Your task to perform on an android device: Open maps Image 0: 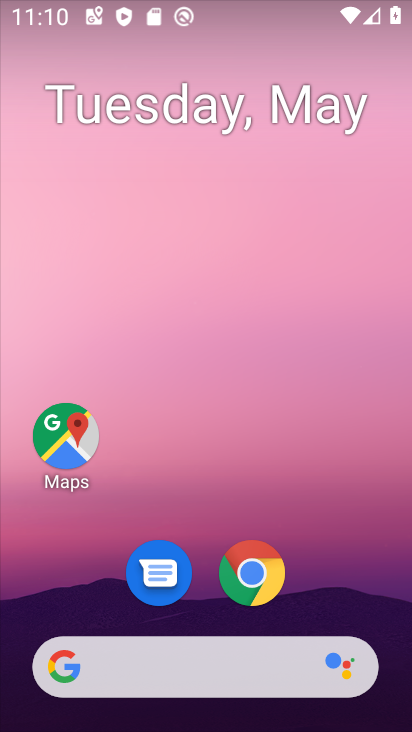
Step 0: click (57, 429)
Your task to perform on an android device: Open maps Image 1: 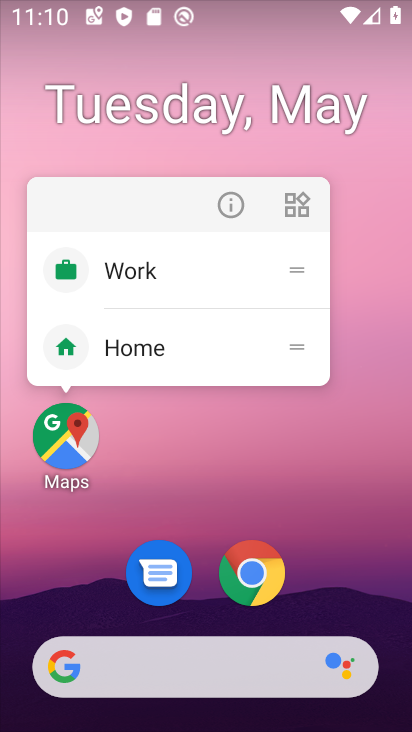
Step 1: click (58, 430)
Your task to perform on an android device: Open maps Image 2: 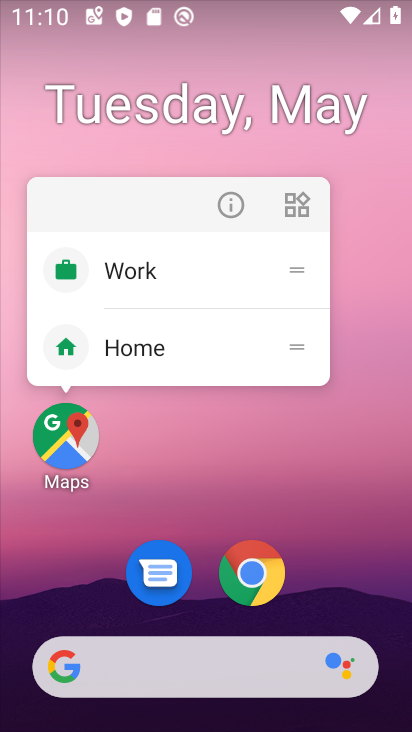
Step 2: click (58, 430)
Your task to perform on an android device: Open maps Image 3: 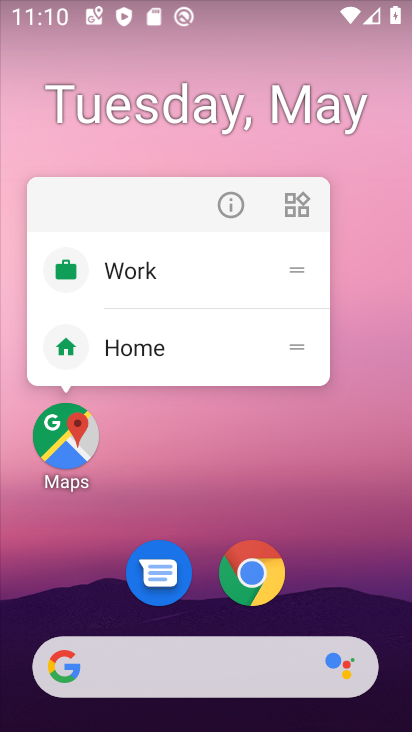
Step 3: click (59, 430)
Your task to perform on an android device: Open maps Image 4: 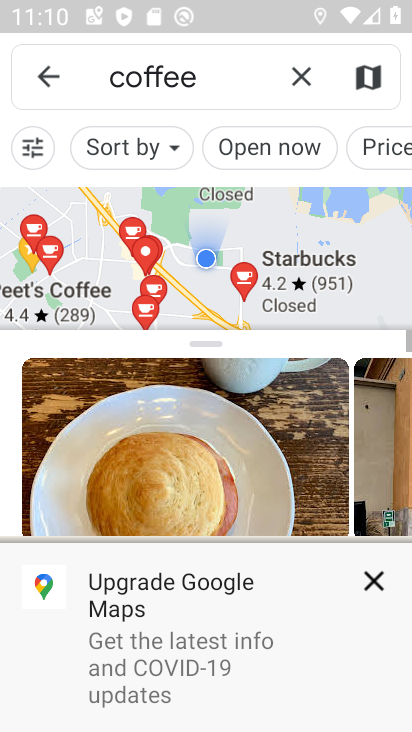
Step 4: click (59, 422)
Your task to perform on an android device: Open maps Image 5: 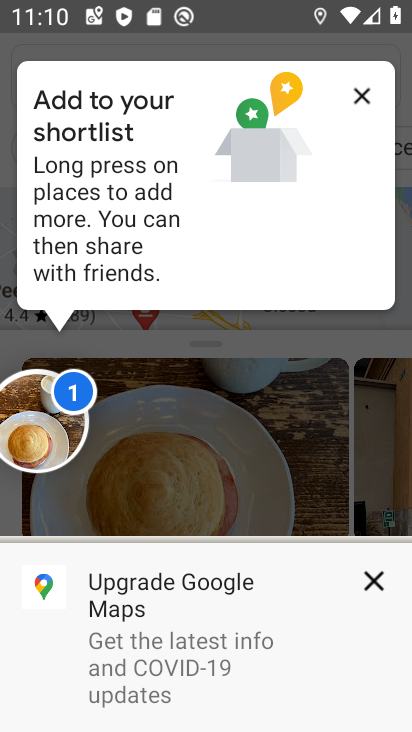
Step 5: click (298, 80)
Your task to perform on an android device: Open maps Image 6: 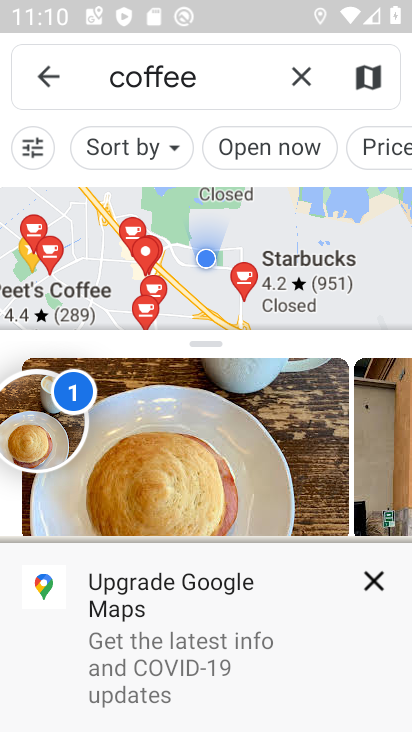
Step 6: click (367, 101)
Your task to perform on an android device: Open maps Image 7: 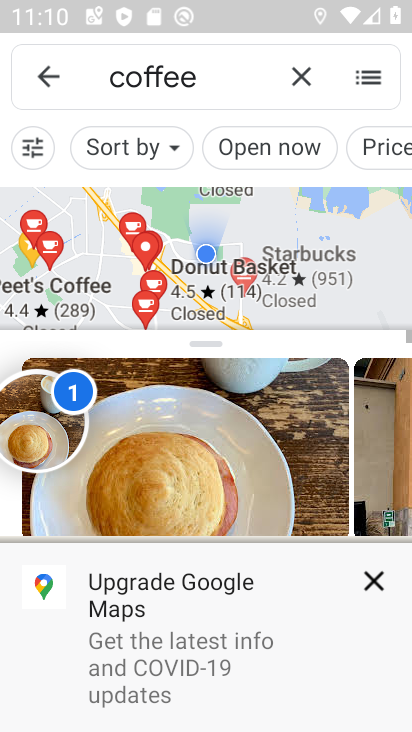
Step 7: click (302, 72)
Your task to perform on an android device: Open maps Image 8: 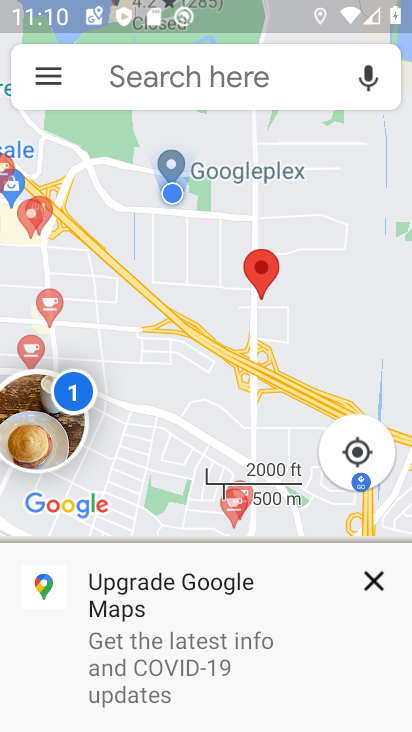
Step 8: click (383, 590)
Your task to perform on an android device: Open maps Image 9: 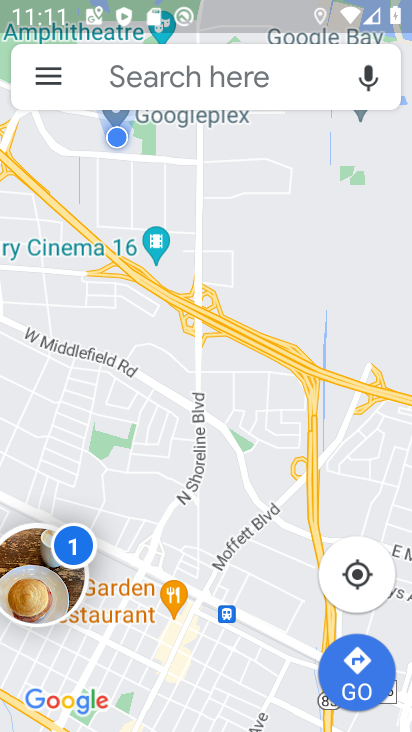
Step 9: task complete